Your task to perform on an android device: turn on location history Image 0: 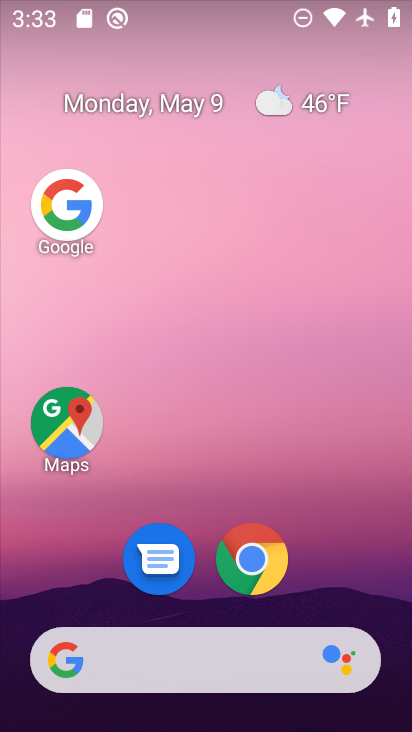
Step 0: drag from (332, 590) to (256, 100)
Your task to perform on an android device: turn on location history Image 1: 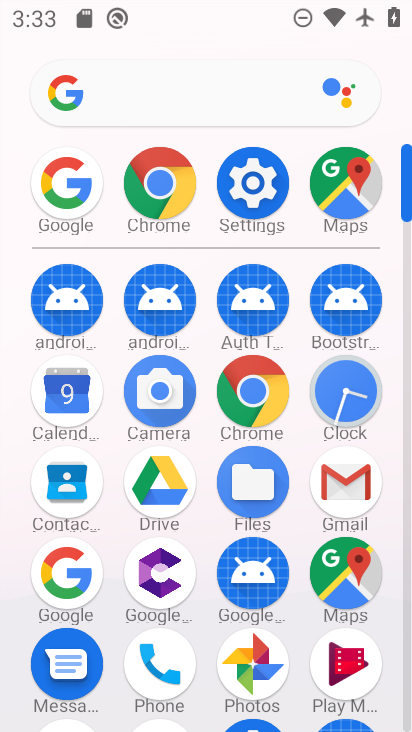
Step 1: click (268, 190)
Your task to perform on an android device: turn on location history Image 2: 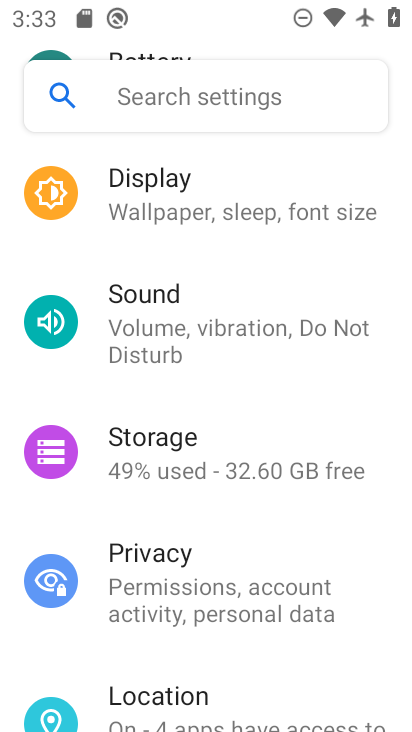
Step 2: click (226, 690)
Your task to perform on an android device: turn on location history Image 3: 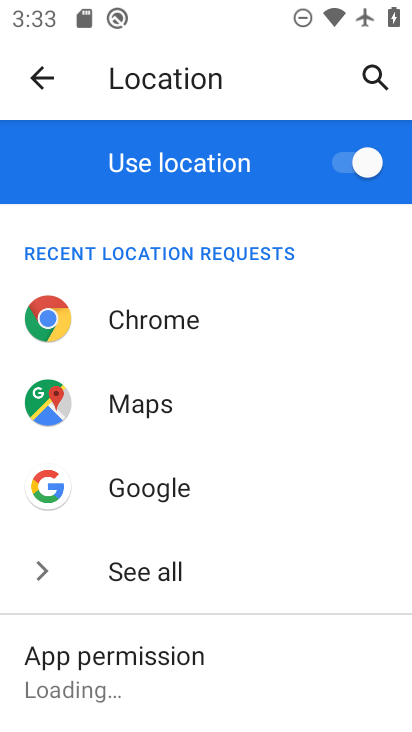
Step 3: drag from (234, 621) to (252, 231)
Your task to perform on an android device: turn on location history Image 4: 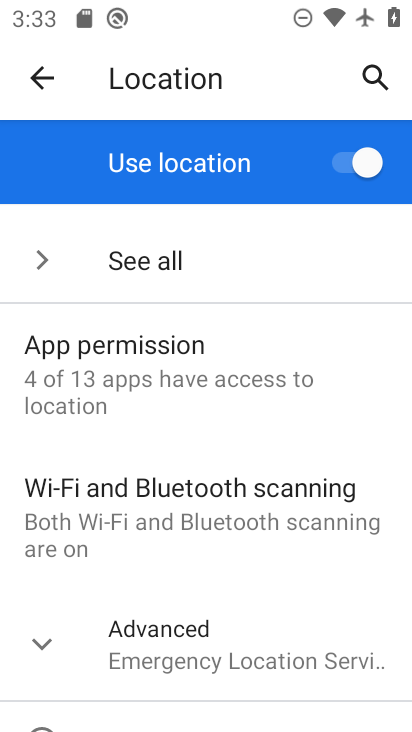
Step 4: drag from (262, 653) to (285, 310)
Your task to perform on an android device: turn on location history Image 5: 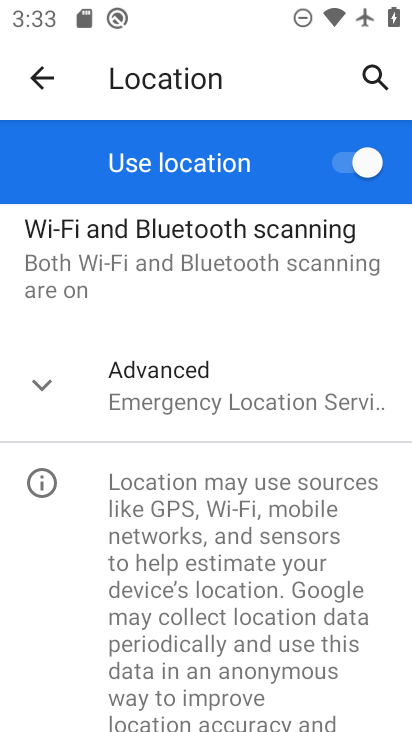
Step 5: click (158, 368)
Your task to perform on an android device: turn on location history Image 6: 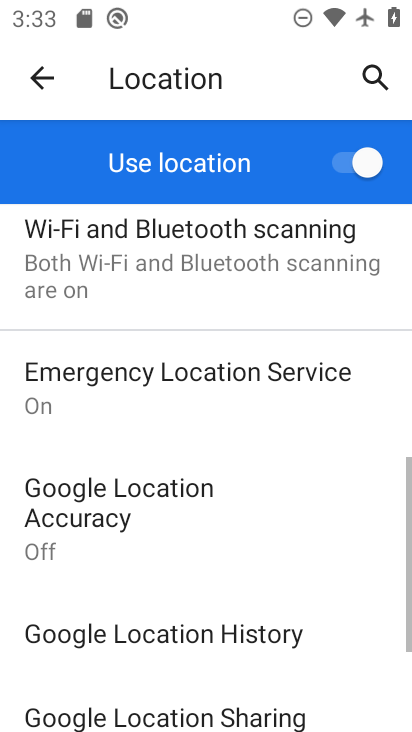
Step 6: drag from (274, 602) to (228, 240)
Your task to perform on an android device: turn on location history Image 7: 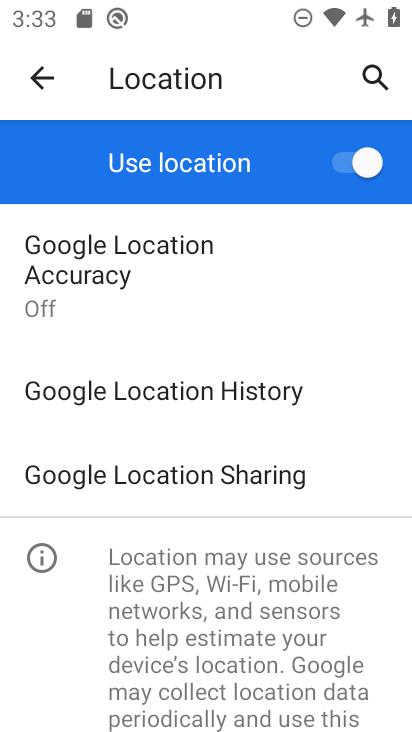
Step 7: click (264, 395)
Your task to perform on an android device: turn on location history Image 8: 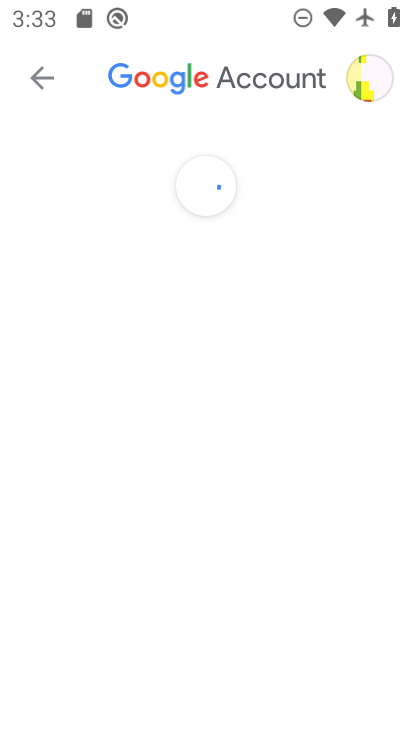
Step 8: task complete